Your task to perform on an android device: Open the phone app and click the voicemail tab. Image 0: 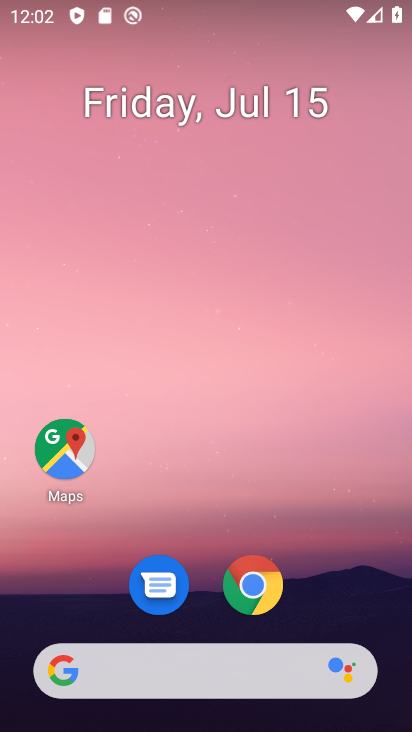
Step 0: drag from (308, 492) to (281, 0)
Your task to perform on an android device: Open the phone app and click the voicemail tab. Image 1: 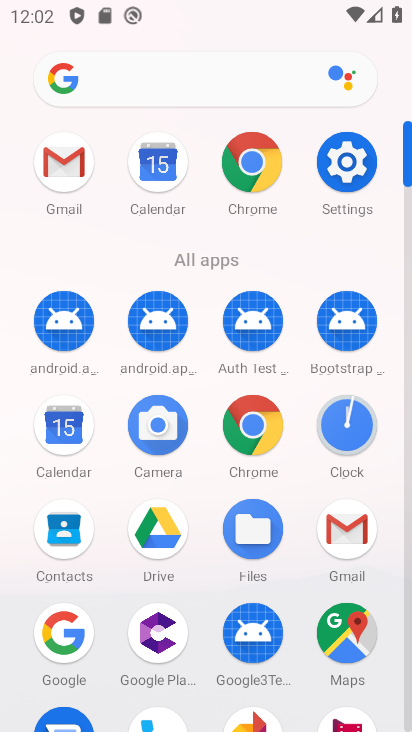
Step 1: drag from (192, 542) to (222, 119)
Your task to perform on an android device: Open the phone app and click the voicemail tab. Image 2: 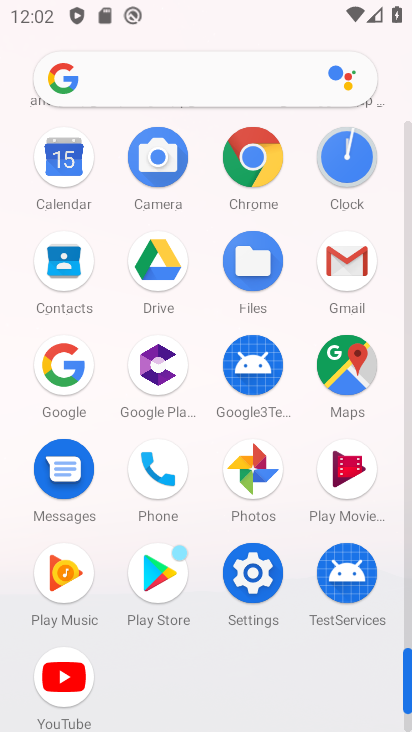
Step 2: click (154, 474)
Your task to perform on an android device: Open the phone app and click the voicemail tab. Image 3: 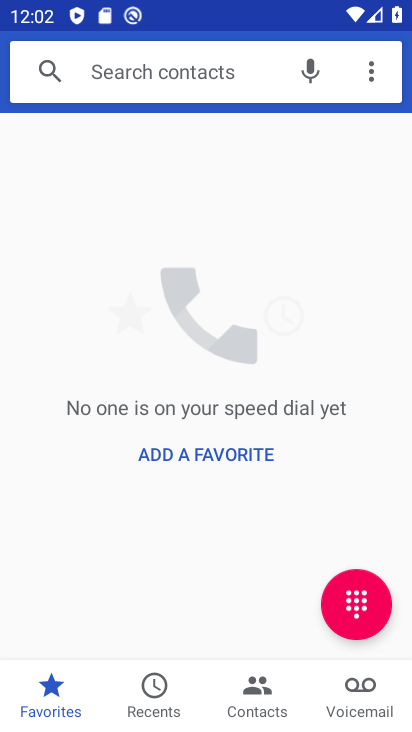
Step 3: click (358, 701)
Your task to perform on an android device: Open the phone app and click the voicemail tab. Image 4: 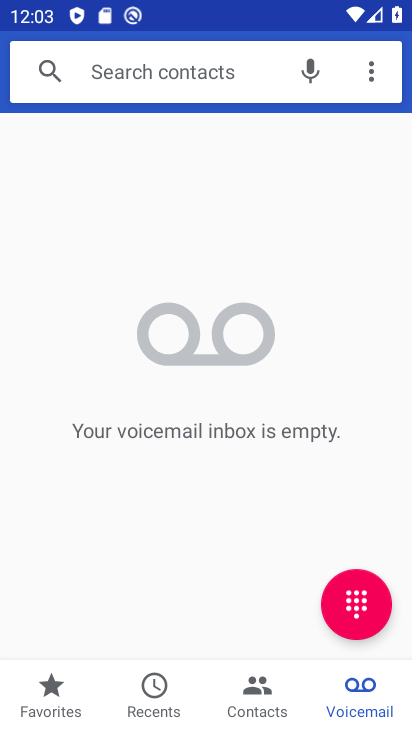
Step 4: task complete